Your task to perform on an android device: show emergency info Image 0: 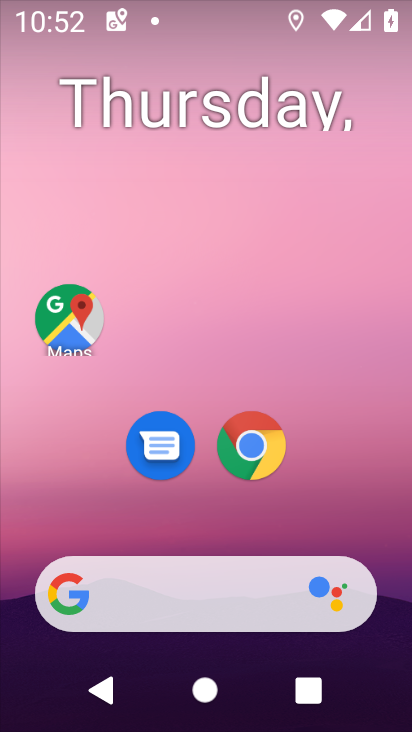
Step 0: drag from (350, 522) to (285, 61)
Your task to perform on an android device: show emergency info Image 1: 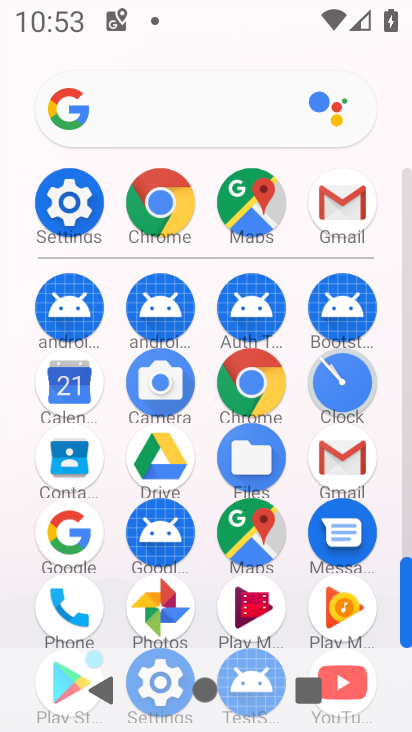
Step 1: click (56, 201)
Your task to perform on an android device: show emergency info Image 2: 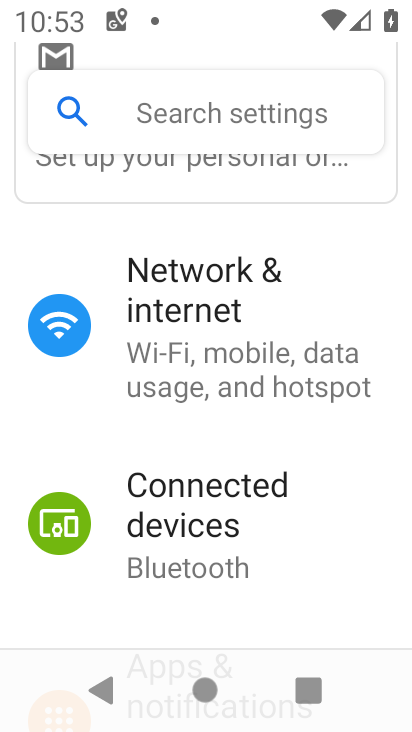
Step 2: drag from (201, 598) to (253, 168)
Your task to perform on an android device: show emergency info Image 3: 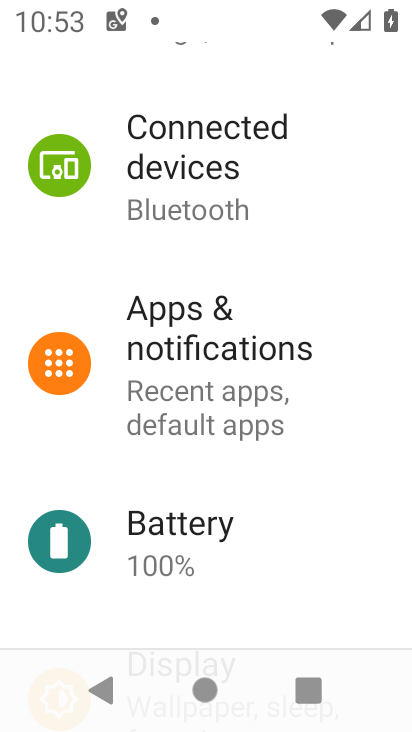
Step 3: drag from (195, 599) to (266, 161)
Your task to perform on an android device: show emergency info Image 4: 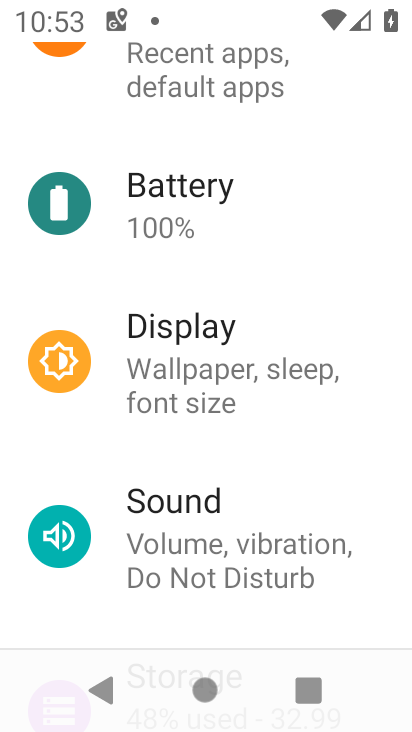
Step 4: drag from (126, 511) to (187, 140)
Your task to perform on an android device: show emergency info Image 5: 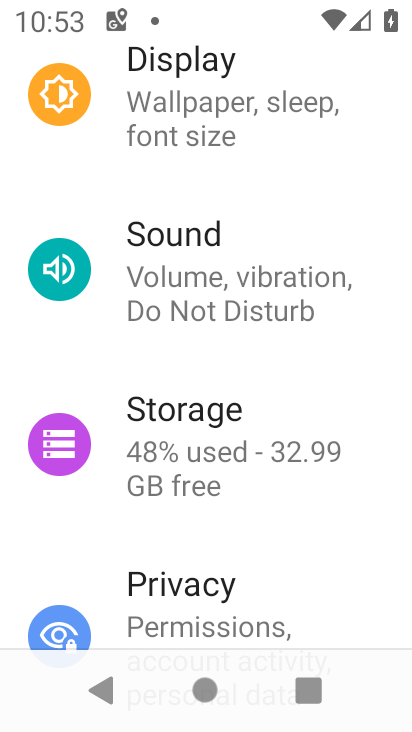
Step 5: drag from (153, 544) to (194, 155)
Your task to perform on an android device: show emergency info Image 6: 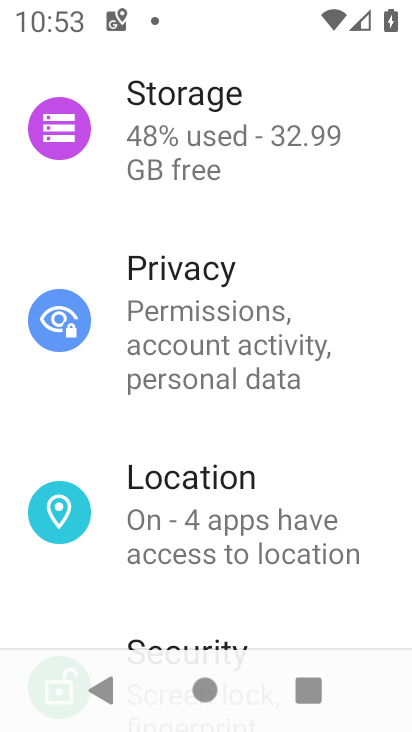
Step 6: drag from (148, 575) to (211, 107)
Your task to perform on an android device: show emergency info Image 7: 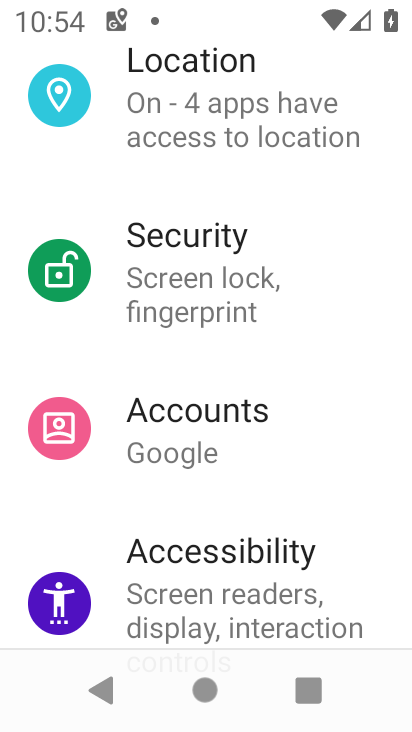
Step 7: drag from (173, 524) to (173, 92)
Your task to perform on an android device: show emergency info Image 8: 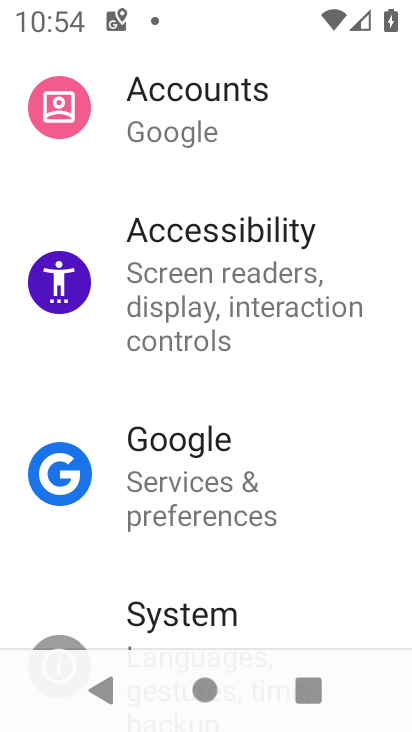
Step 8: drag from (188, 572) to (254, 100)
Your task to perform on an android device: show emergency info Image 9: 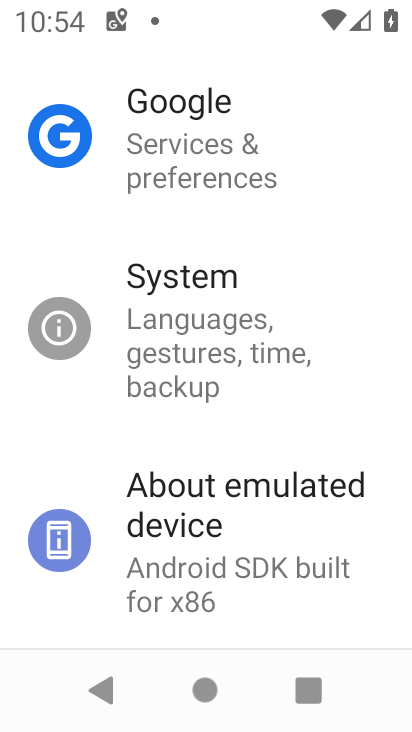
Step 9: click (218, 529)
Your task to perform on an android device: show emergency info Image 10: 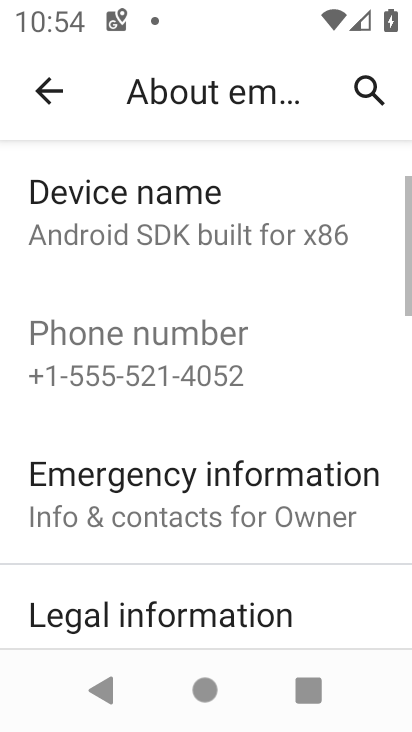
Step 10: click (219, 522)
Your task to perform on an android device: show emergency info Image 11: 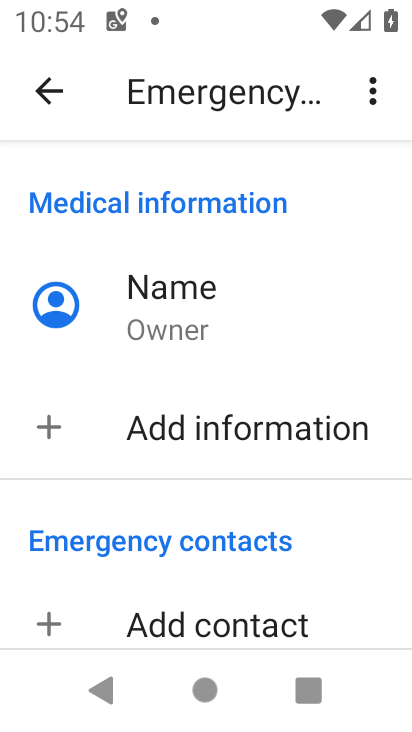
Step 11: task complete